Your task to perform on an android device: remove spam from my inbox in the gmail app Image 0: 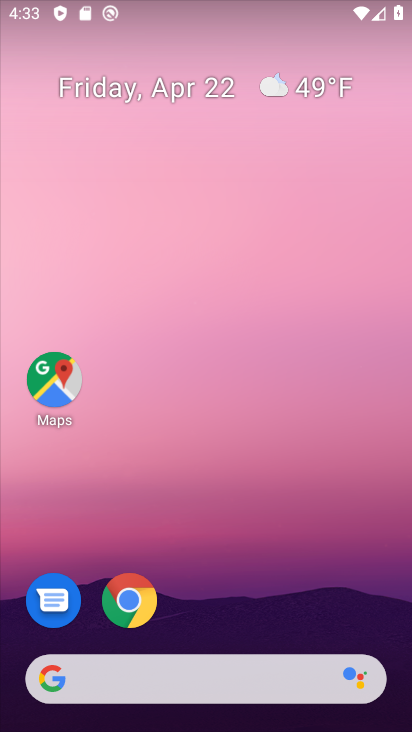
Step 0: drag from (231, 550) to (219, 28)
Your task to perform on an android device: remove spam from my inbox in the gmail app Image 1: 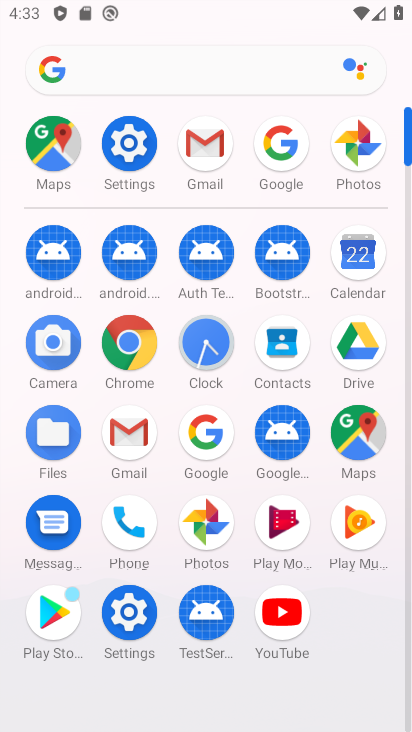
Step 1: click (203, 138)
Your task to perform on an android device: remove spam from my inbox in the gmail app Image 2: 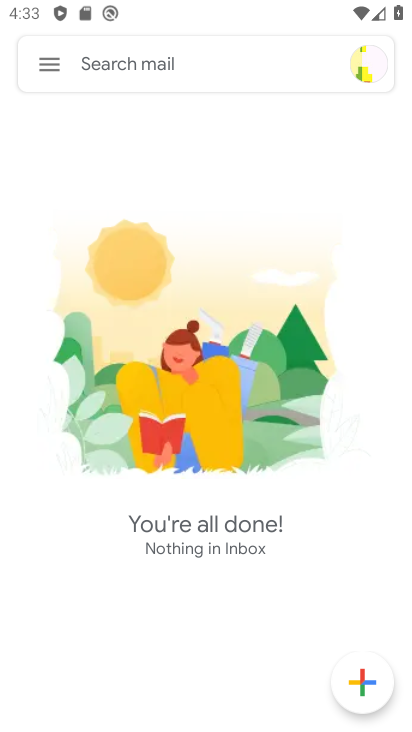
Step 2: click (49, 61)
Your task to perform on an android device: remove spam from my inbox in the gmail app Image 3: 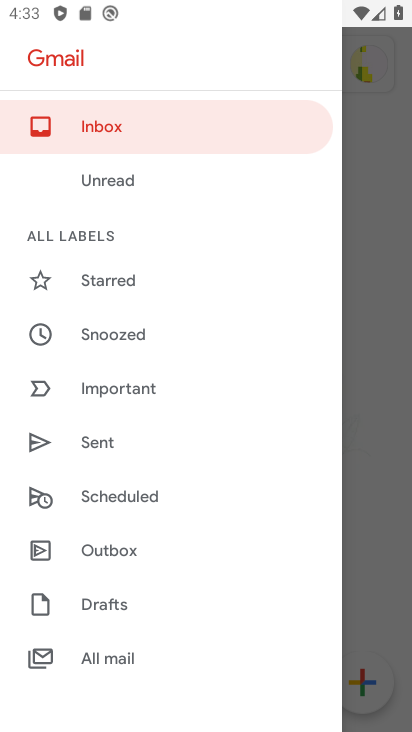
Step 3: drag from (132, 599) to (135, 483)
Your task to perform on an android device: remove spam from my inbox in the gmail app Image 4: 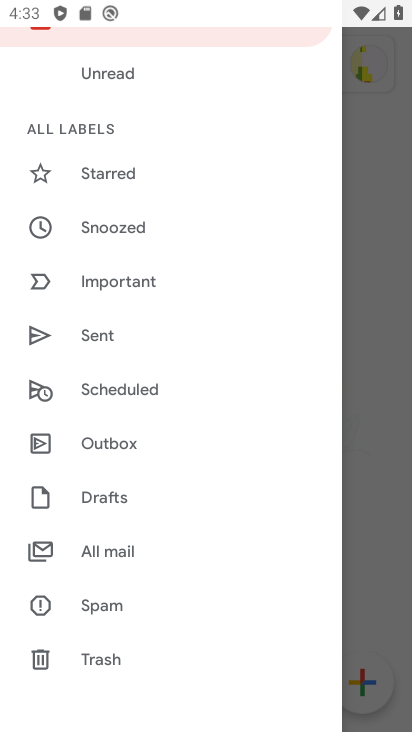
Step 4: drag from (131, 571) to (166, 502)
Your task to perform on an android device: remove spam from my inbox in the gmail app Image 5: 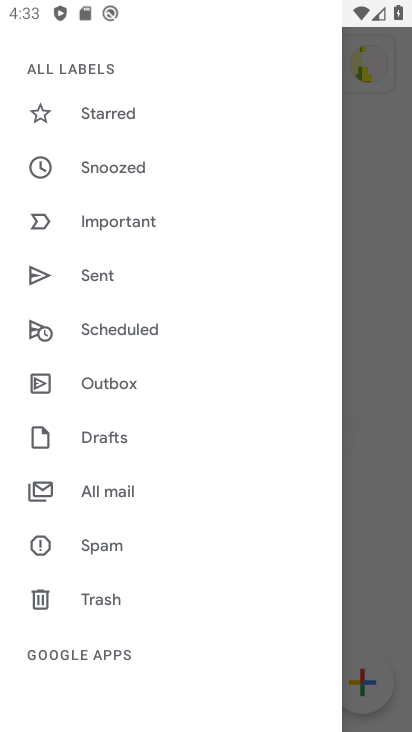
Step 5: click (107, 547)
Your task to perform on an android device: remove spam from my inbox in the gmail app Image 6: 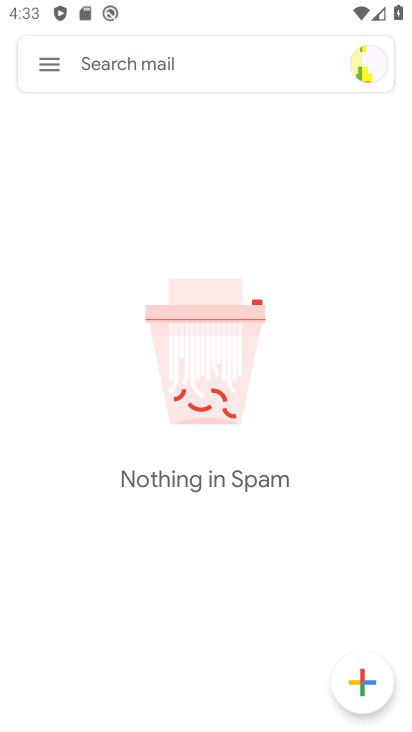
Step 6: task complete